Your task to perform on an android device: visit the assistant section in the google photos Image 0: 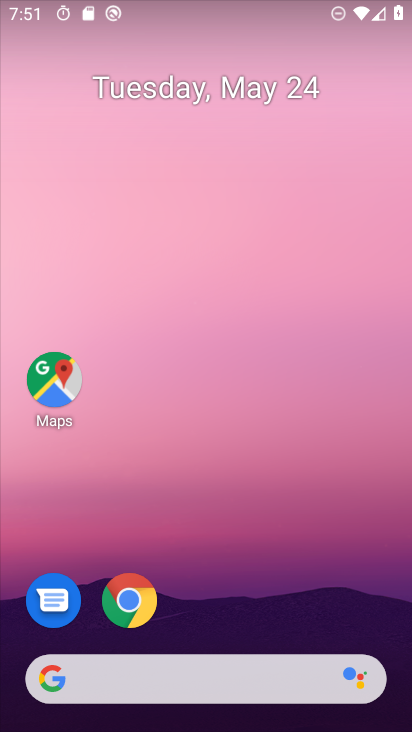
Step 0: drag from (162, 550) to (248, 136)
Your task to perform on an android device: visit the assistant section in the google photos Image 1: 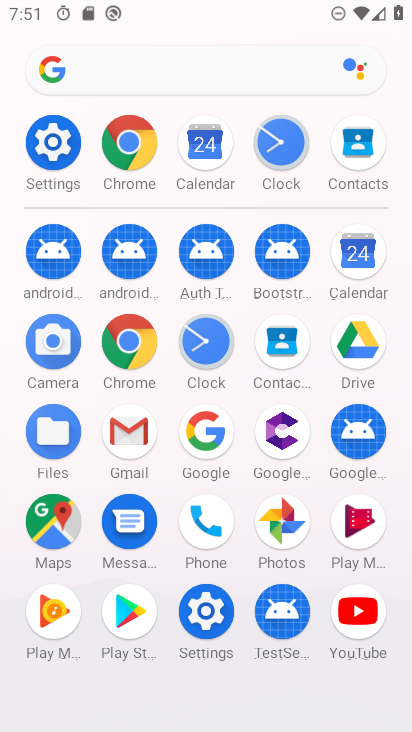
Step 1: click (289, 508)
Your task to perform on an android device: visit the assistant section in the google photos Image 2: 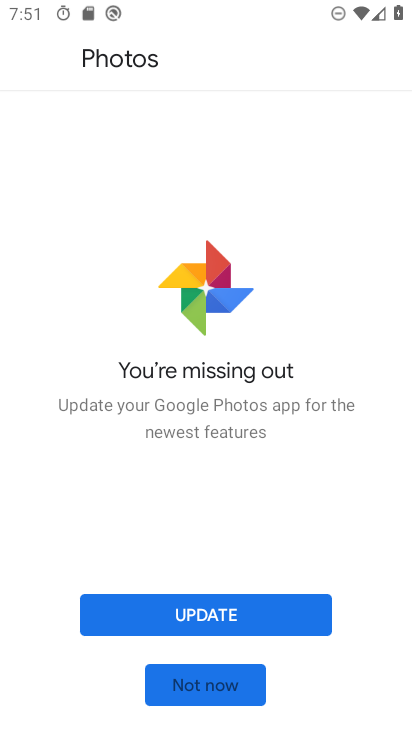
Step 2: click (206, 692)
Your task to perform on an android device: visit the assistant section in the google photos Image 3: 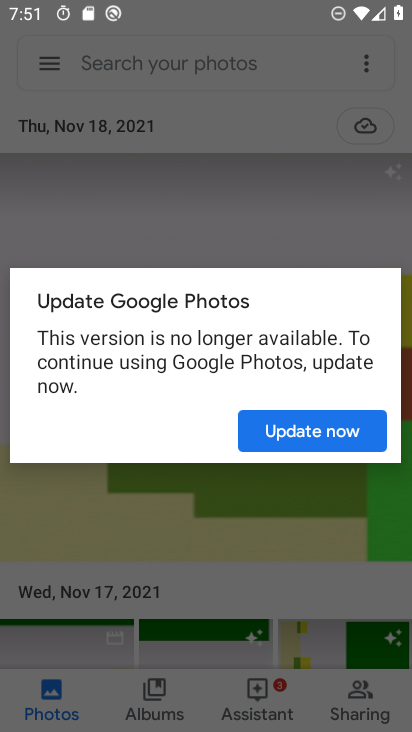
Step 3: click (280, 439)
Your task to perform on an android device: visit the assistant section in the google photos Image 4: 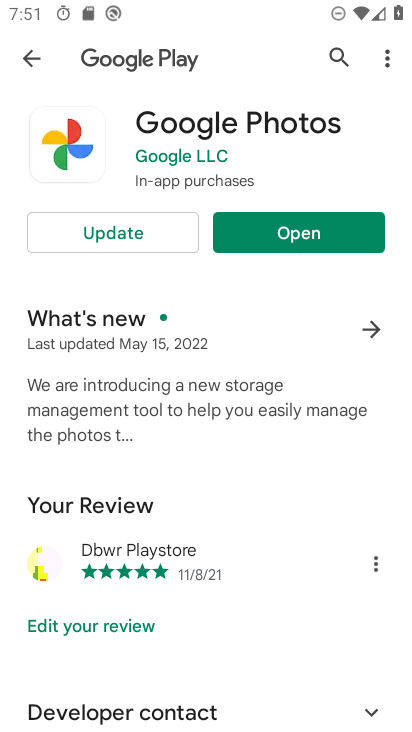
Step 4: click (19, 67)
Your task to perform on an android device: visit the assistant section in the google photos Image 5: 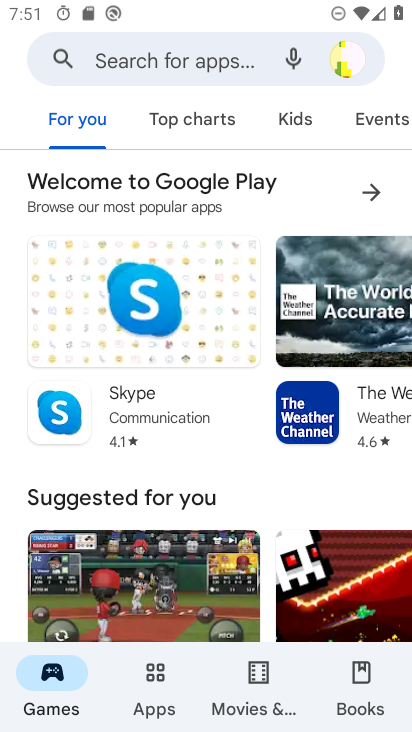
Step 5: press back button
Your task to perform on an android device: visit the assistant section in the google photos Image 6: 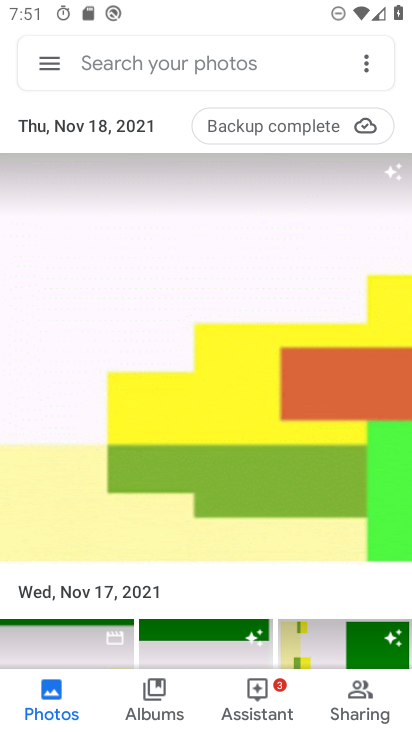
Step 6: click (249, 711)
Your task to perform on an android device: visit the assistant section in the google photos Image 7: 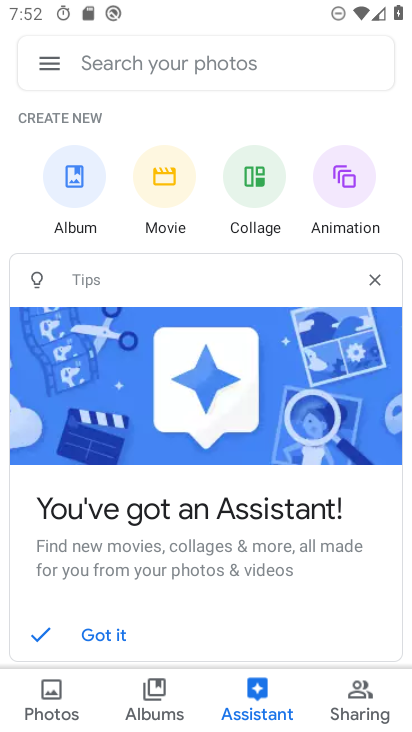
Step 7: task complete